Your task to perform on an android device: change notifications settings Image 0: 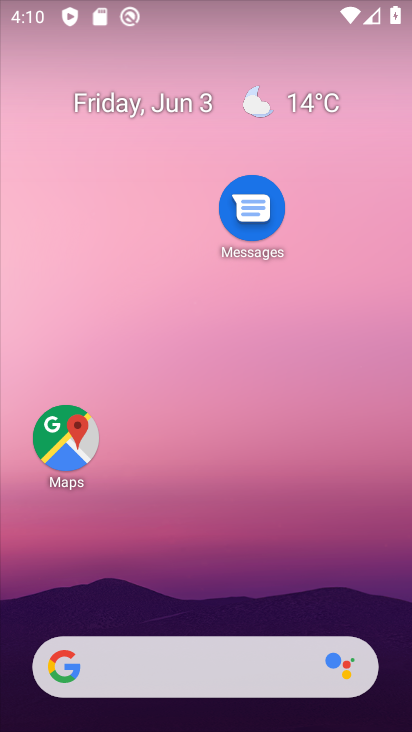
Step 0: drag from (221, 596) to (256, 9)
Your task to perform on an android device: change notifications settings Image 1: 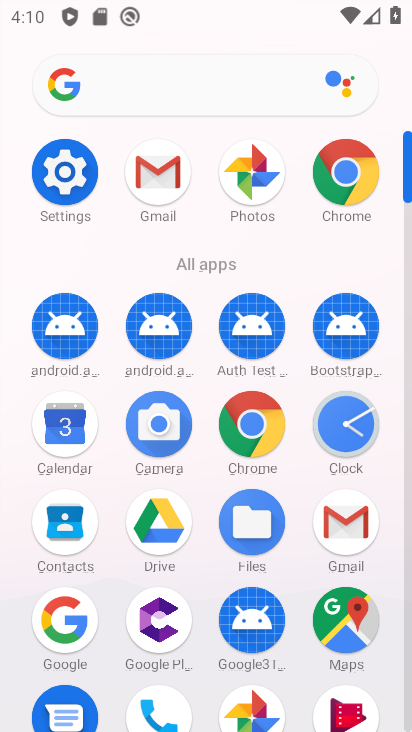
Step 1: click (61, 185)
Your task to perform on an android device: change notifications settings Image 2: 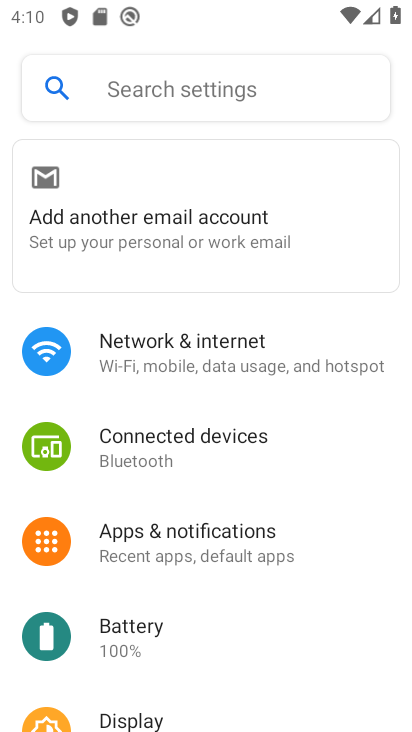
Step 2: click (157, 546)
Your task to perform on an android device: change notifications settings Image 3: 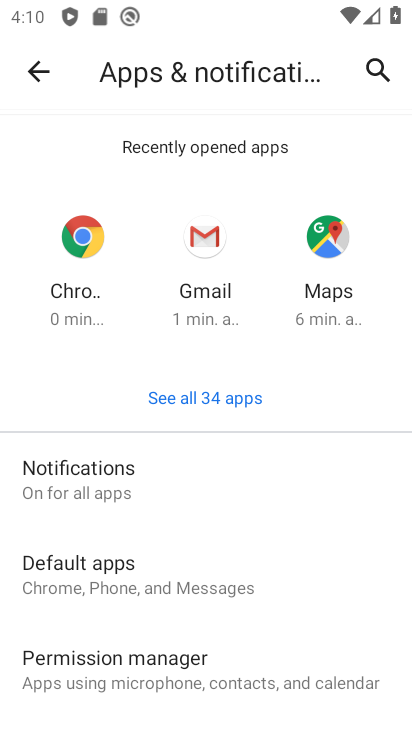
Step 3: click (93, 493)
Your task to perform on an android device: change notifications settings Image 4: 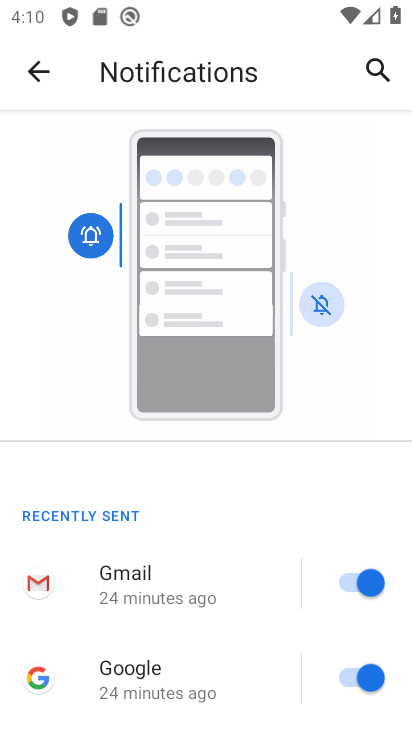
Step 4: drag from (172, 611) to (202, 354)
Your task to perform on an android device: change notifications settings Image 5: 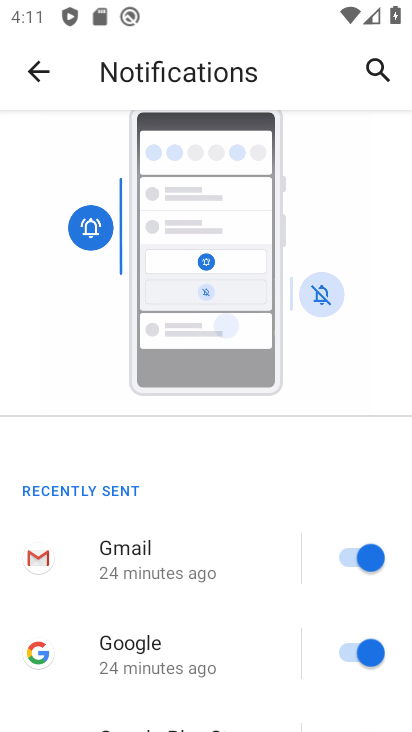
Step 5: drag from (210, 642) to (224, 459)
Your task to perform on an android device: change notifications settings Image 6: 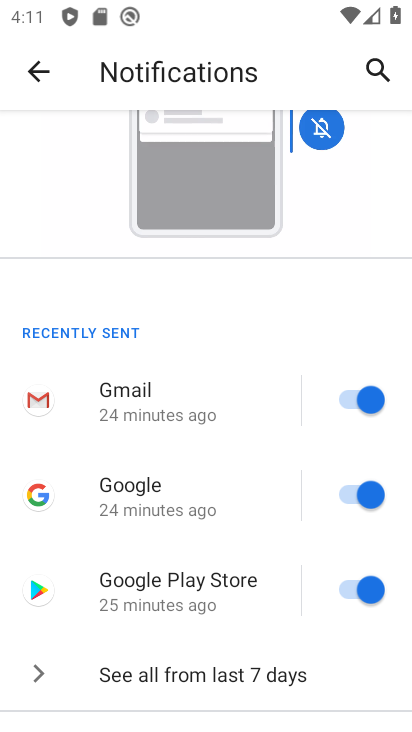
Step 6: drag from (235, 678) to (268, 388)
Your task to perform on an android device: change notifications settings Image 7: 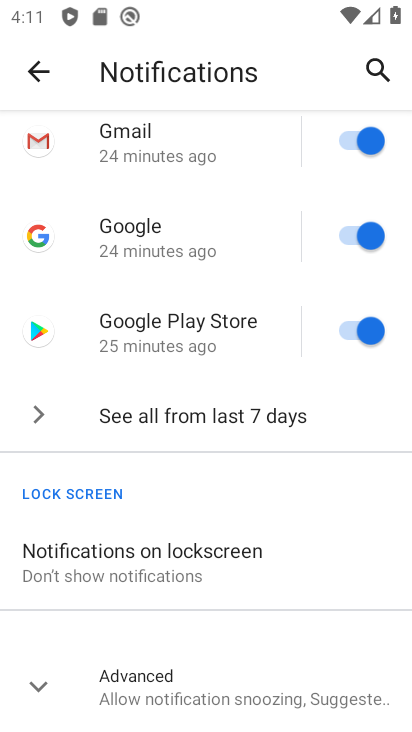
Step 7: click (173, 561)
Your task to perform on an android device: change notifications settings Image 8: 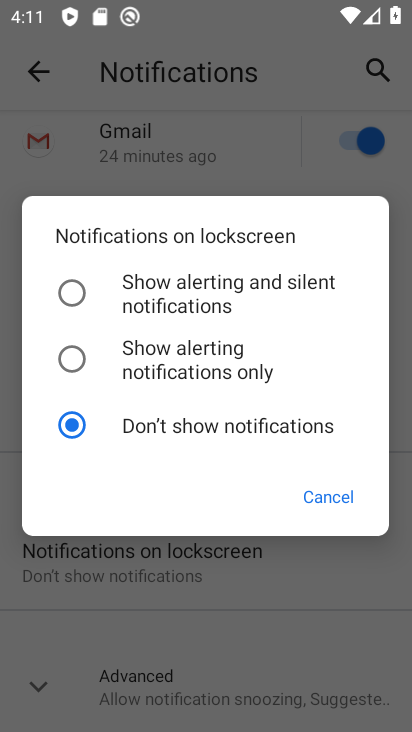
Step 8: click (71, 288)
Your task to perform on an android device: change notifications settings Image 9: 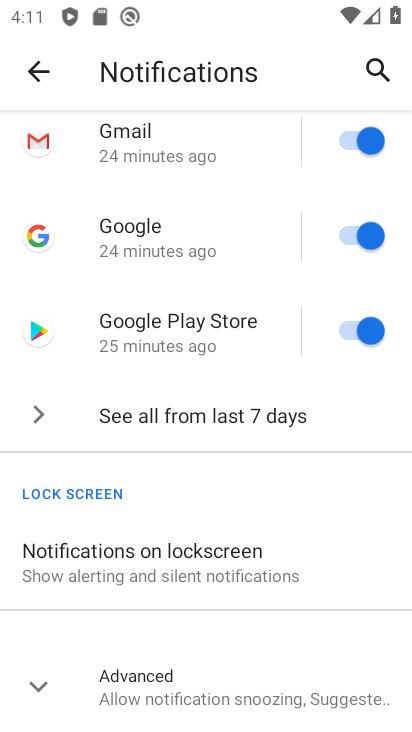
Step 9: task complete